Your task to perform on an android device: toggle improve location accuracy Image 0: 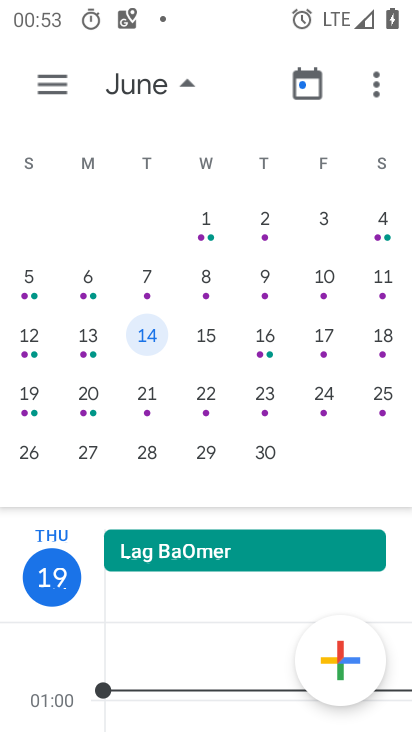
Step 0: press home button
Your task to perform on an android device: toggle improve location accuracy Image 1: 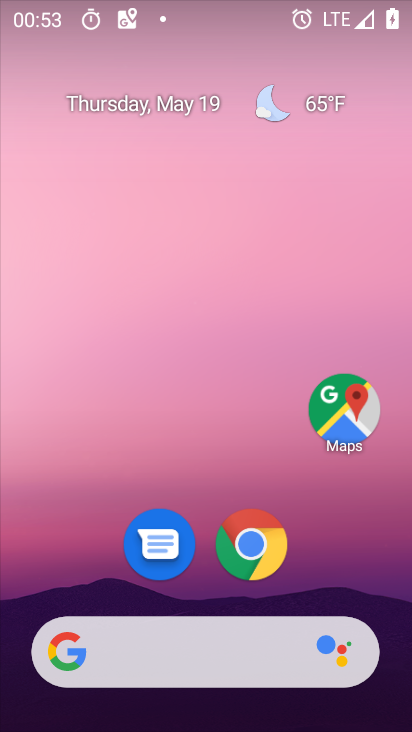
Step 1: drag from (365, 569) to (350, 149)
Your task to perform on an android device: toggle improve location accuracy Image 2: 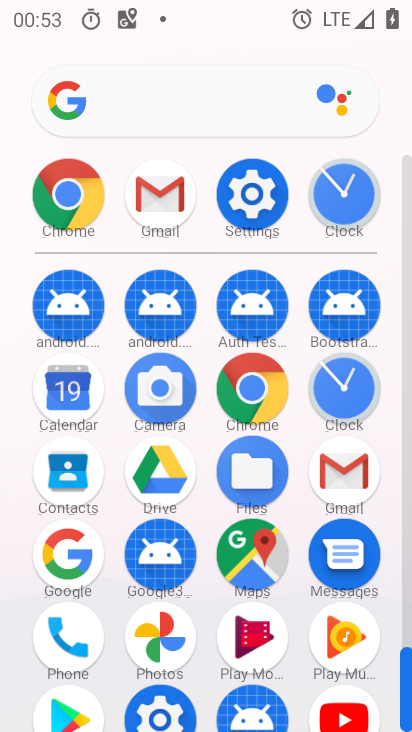
Step 2: drag from (391, 552) to (382, 406)
Your task to perform on an android device: toggle improve location accuracy Image 3: 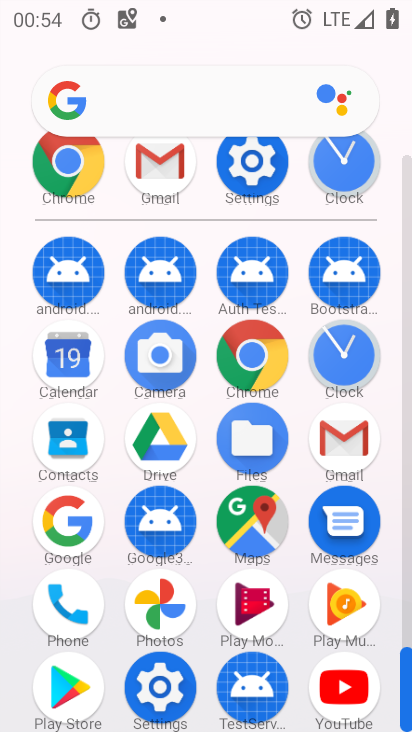
Step 3: click (162, 687)
Your task to perform on an android device: toggle improve location accuracy Image 4: 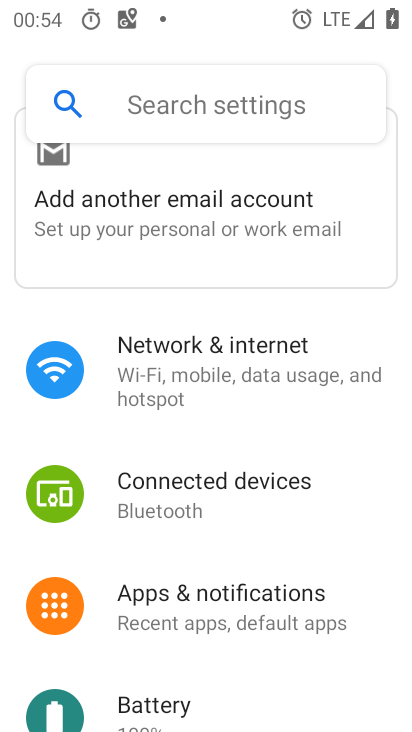
Step 4: drag from (357, 442) to (348, 669)
Your task to perform on an android device: toggle improve location accuracy Image 5: 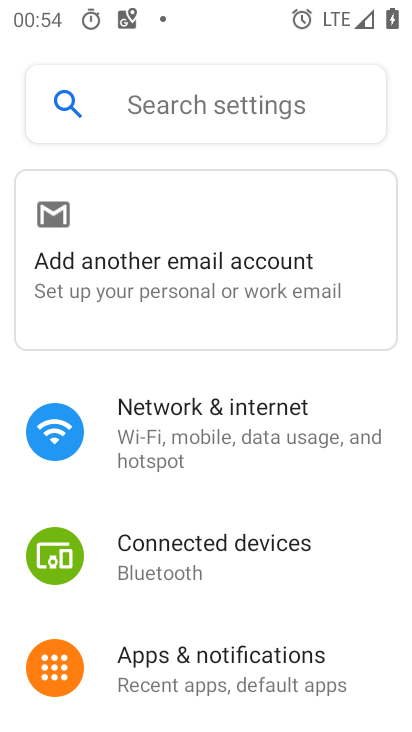
Step 5: drag from (361, 645) to (361, 400)
Your task to perform on an android device: toggle improve location accuracy Image 6: 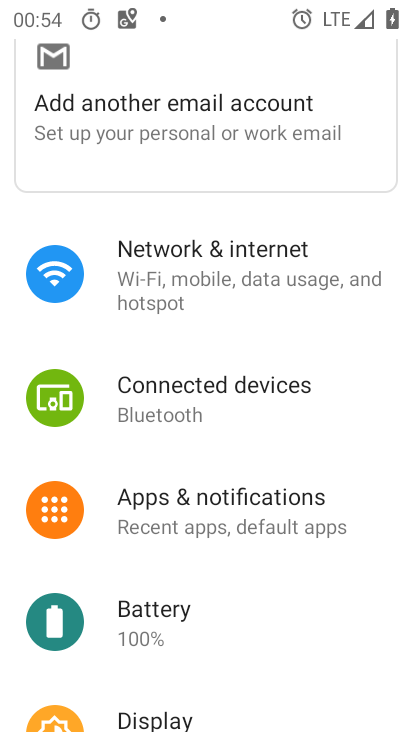
Step 6: drag from (364, 651) to (361, 427)
Your task to perform on an android device: toggle improve location accuracy Image 7: 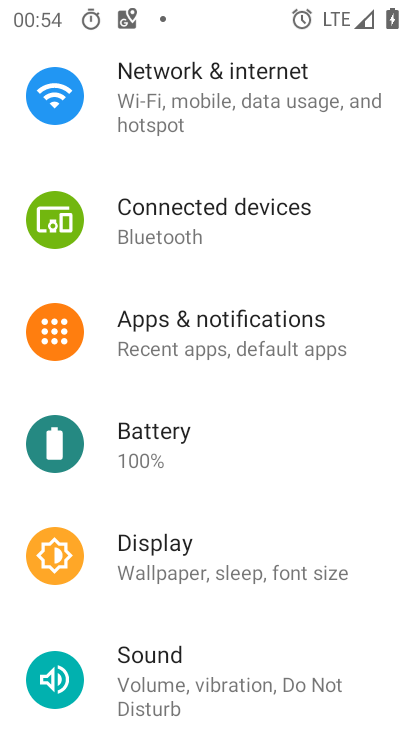
Step 7: drag from (363, 670) to (370, 467)
Your task to perform on an android device: toggle improve location accuracy Image 8: 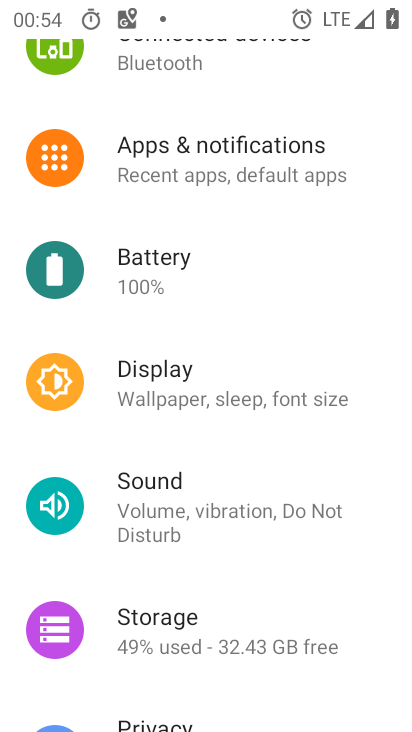
Step 8: drag from (371, 673) to (367, 461)
Your task to perform on an android device: toggle improve location accuracy Image 9: 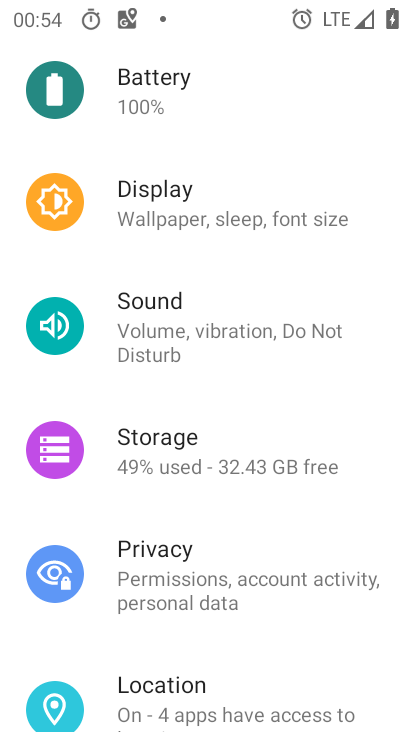
Step 9: drag from (335, 665) to (343, 473)
Your task to perform on an android device: toggle improve location accuracy Image 10: 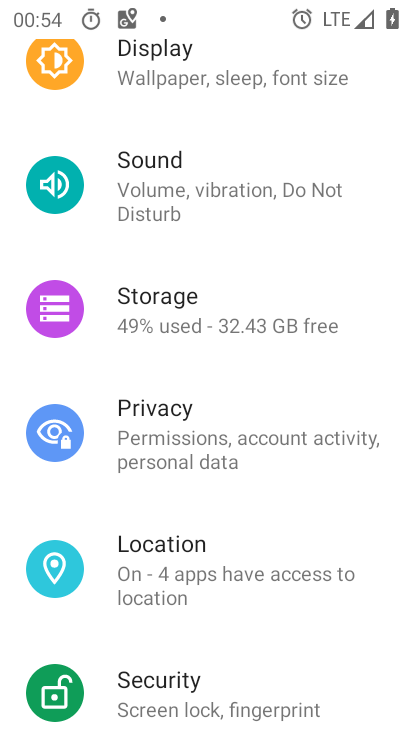
Step 10: drag from (342, 632) to (350, 423)
Your task to perform on an android device: toggle improve location accuracy Image 11: 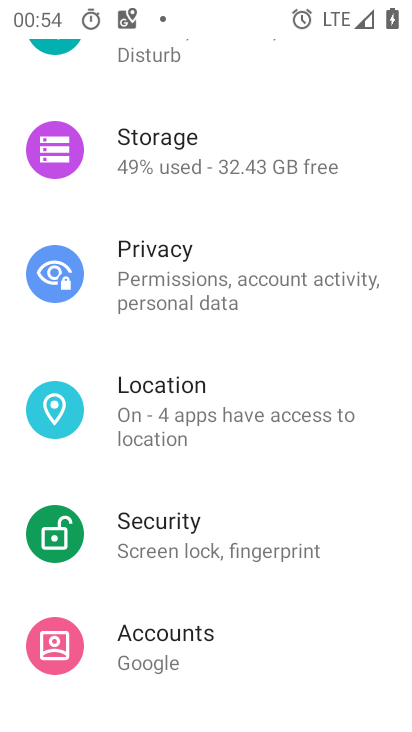
Step 11: drag from (328, 664) to (331, 469)
Your task to perform on an android device: toggle improve location accuracy Image 12: 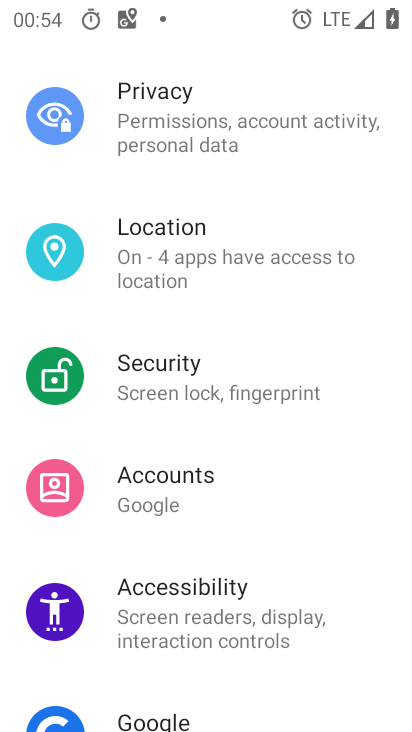
Step 12: drag from (331, 679) to (338, 527)
Your task to perform on an android device: toggle improve location accuracy Image 13: 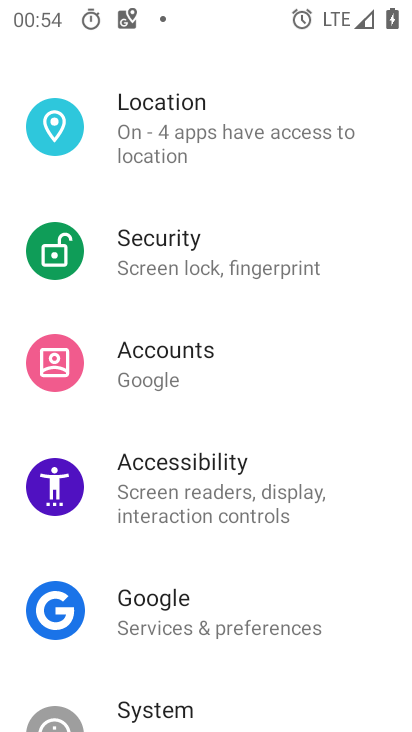
Step 13: drag from (350, 364) to (328, 569)
Your task to perform on an android device: toggle improve location accuracy Image 14: 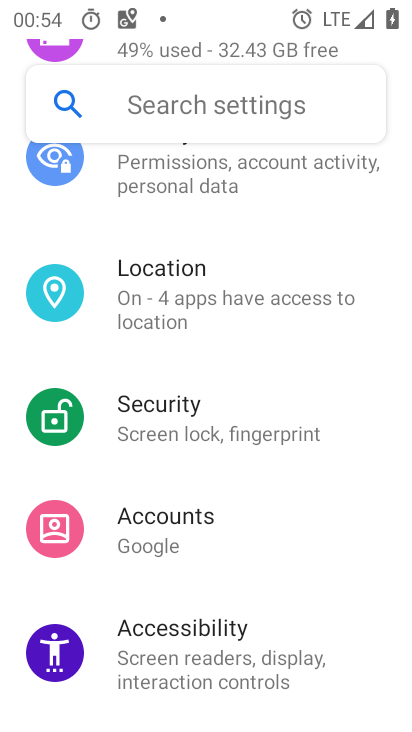
Step 14: drag from (349, 341) to (351, 506)
Your task to perform on an android device: toggle improve location accuracy Image 15: 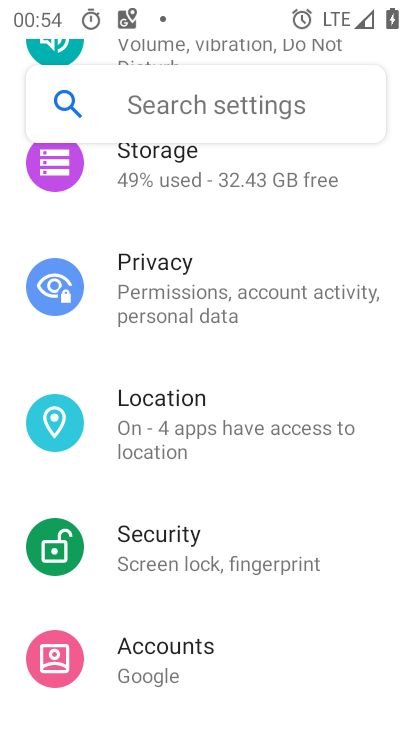
Step 15: click (213, 411)
Your task to perform on an android device: toggle improve location accuracy Image 16: 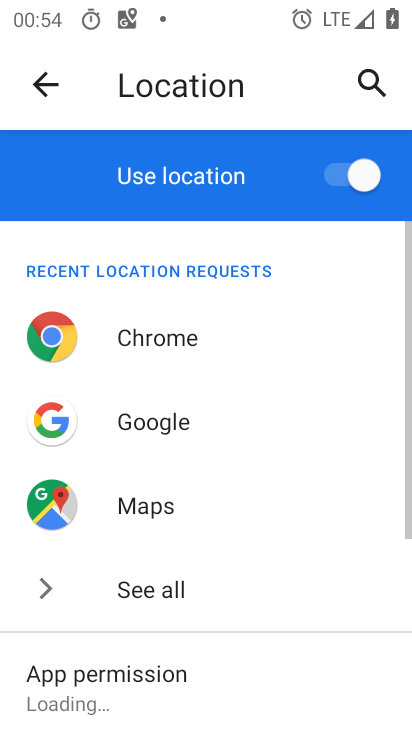
Step 16: drag from (328, 587) to (333, 381)
Your task to perform on an android device: toggle improve location accuracy Image 17: 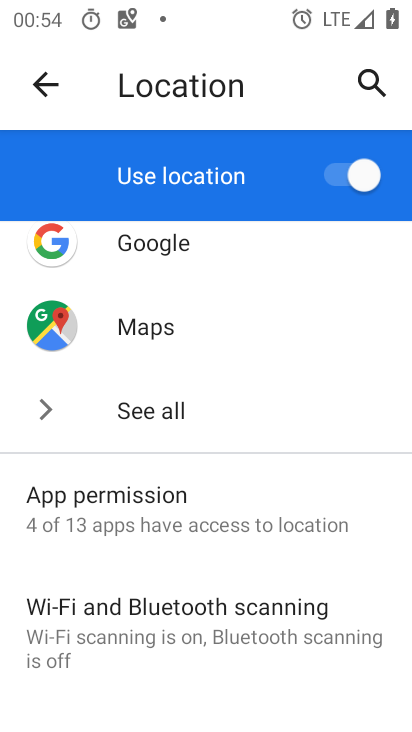
Step 17: drag from (300, 613) to (289, 409)
Your task to perform on an android device: toggle improve location accuracy Image 18: 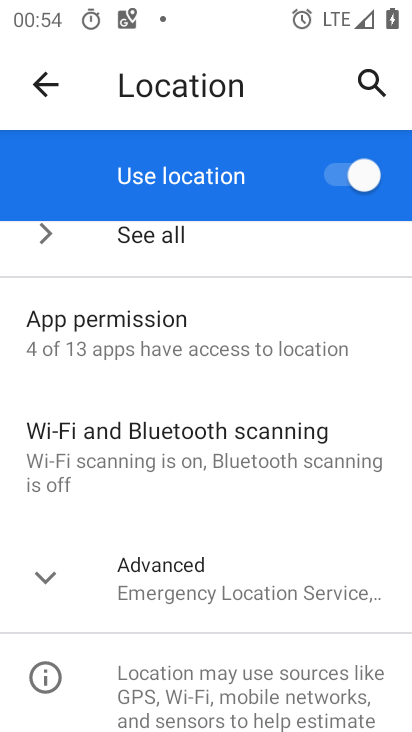
Step 18: drag from (272, 523) to (269, 354)
Your task to perform on an android device: toggle improve location accuracy Image 19: 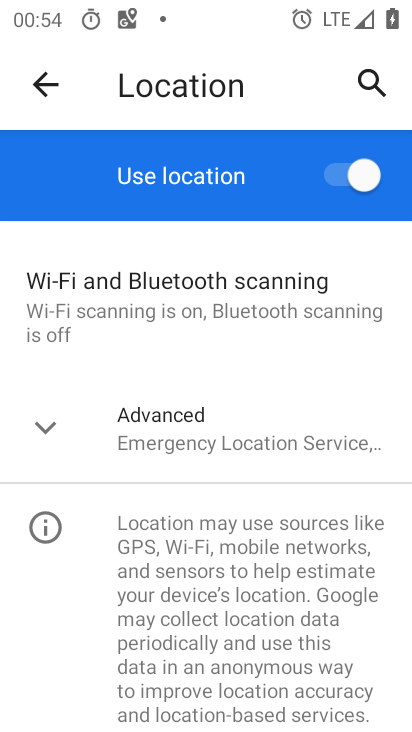
Step 19: click (250, 438)
Your task to perform on an android device: toggle improve location accuracy Image 20: 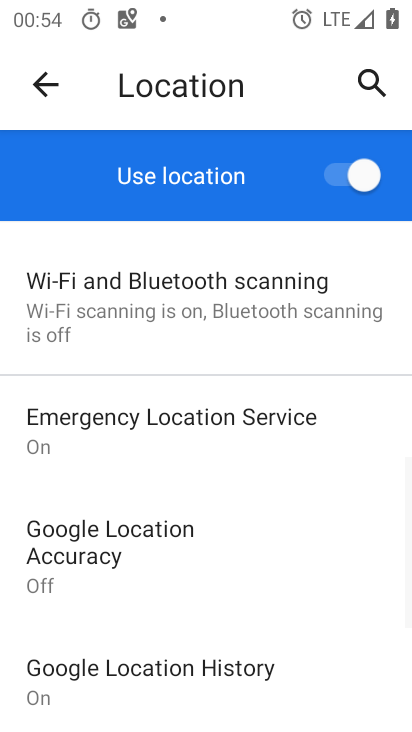
Step 20: drag from (260, 638) to (257, 467)
Your task to perform on an android device: toggle improve location accuracy Image 21: 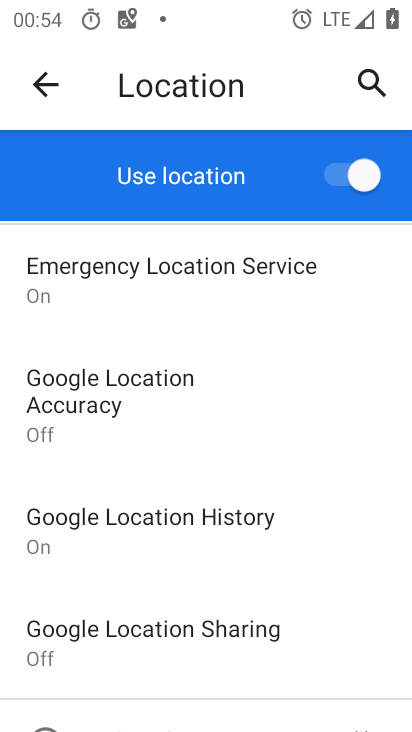
Step 21: drag from (304, 662) to (304, 519)
Your task to perform on an android device: toggle improve location accuracy Image 22: 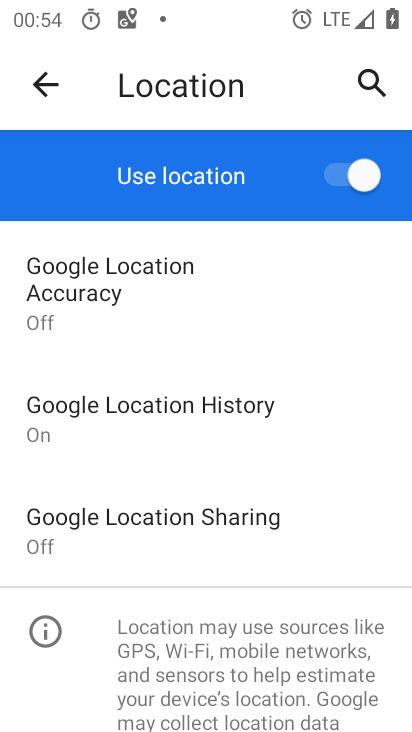
Step 22: drag from (303, 661) to (316, 506)
Your task to perform on an android device: toggle improve location accuracy Image 23: 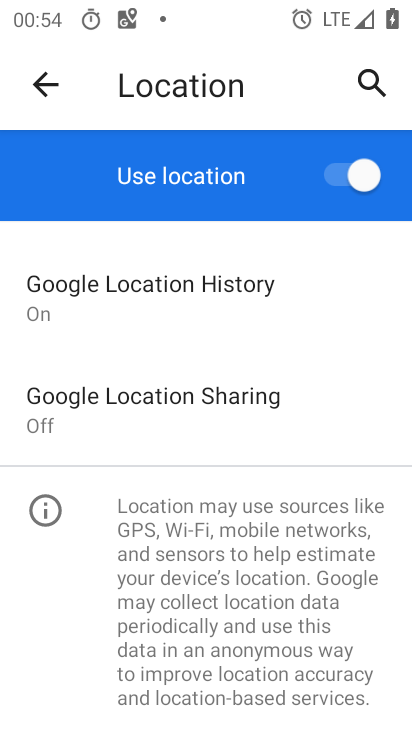
Step 23: drag from (307, 647) to (302, 481)
Your task to perform on an android device: toggle improve location accuracy Image 24: 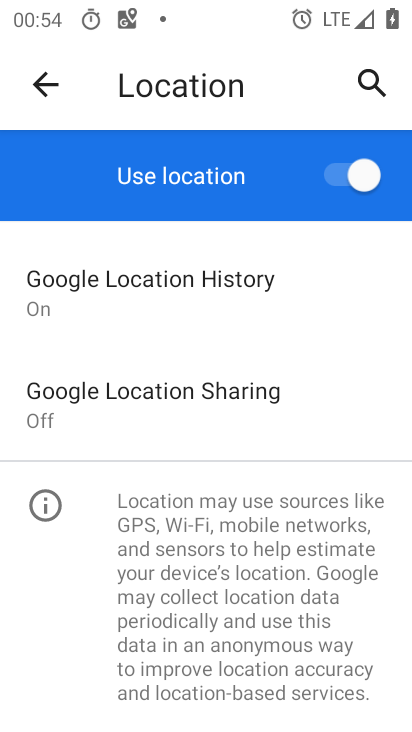
Step 24: drag from (321, 378) to (295, 545)
Your task to perform on an android device: toggle improve location accuracy Image 25: 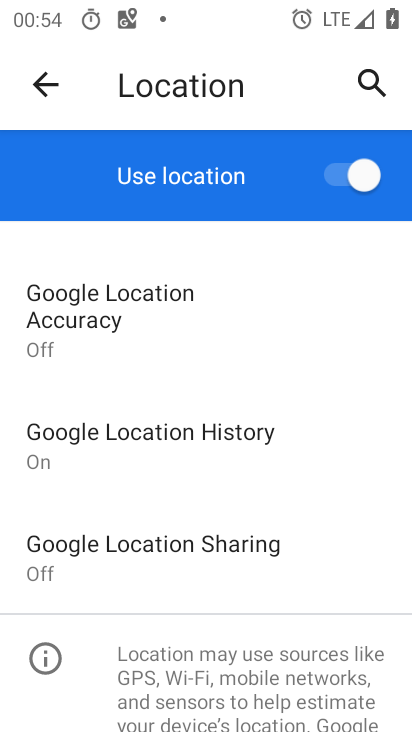
Step 25: drag from (314, 346) to (309, 534)
Your task to perform on an android device: toggle improve location accuracy Image 26: 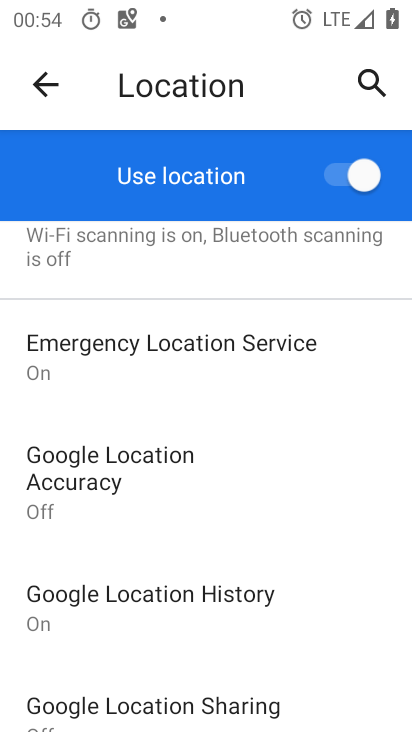
Step 26: drag from (334, 310) to (335, 415)
Your task to perform on an android device: toggle improve location accuracy Image 27: 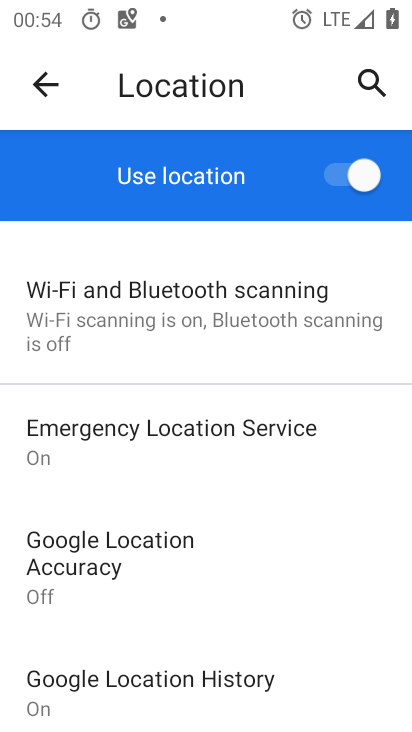
Step 27: drag from (314, 620) to (328, 445)
Your task to perform on an android device: toggle improve location accuracy Image 28: 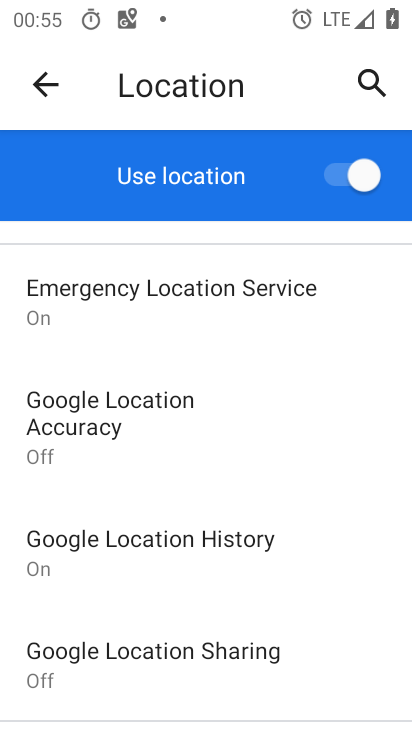
Step 28: click (82, 416)
Your task to perform on an android device: toggle improve location accuracy Image 29: 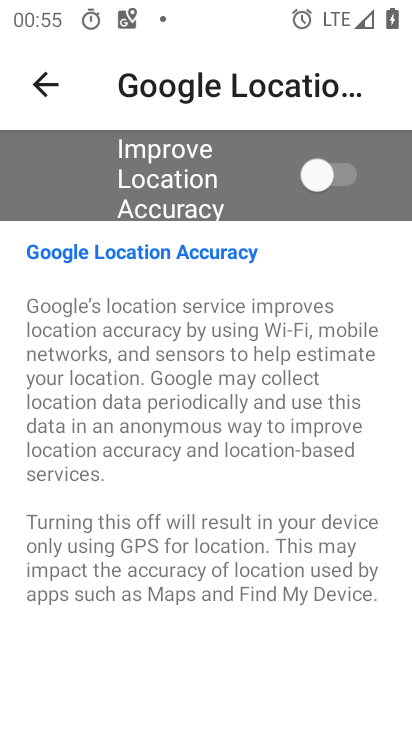
Step 29: click (313, 168)
Your task to perform on an android device: toggle improve location accuracy Image 30: 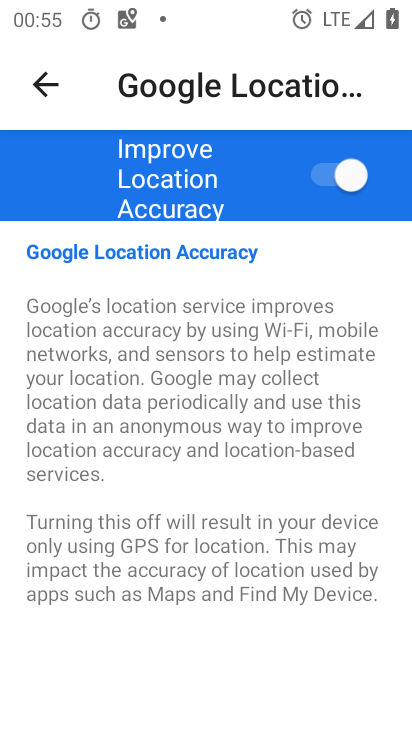
Step 30: task complete